Your task to perform on an android device: What's the news in China? Image 0: 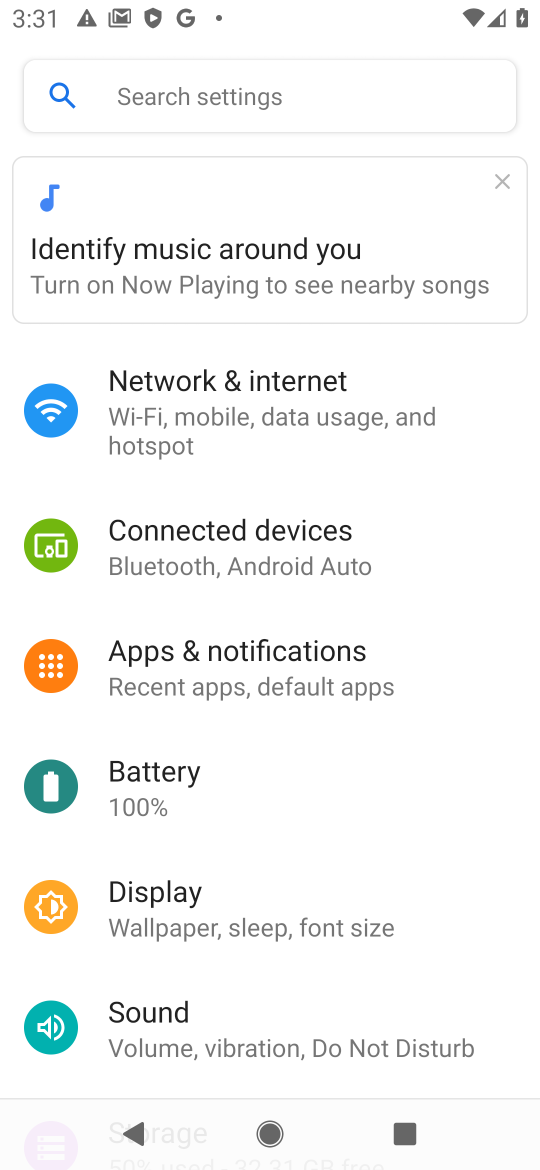
Step 0: press home button
Your task to perform on an android device: What's the news in China? Image 1: 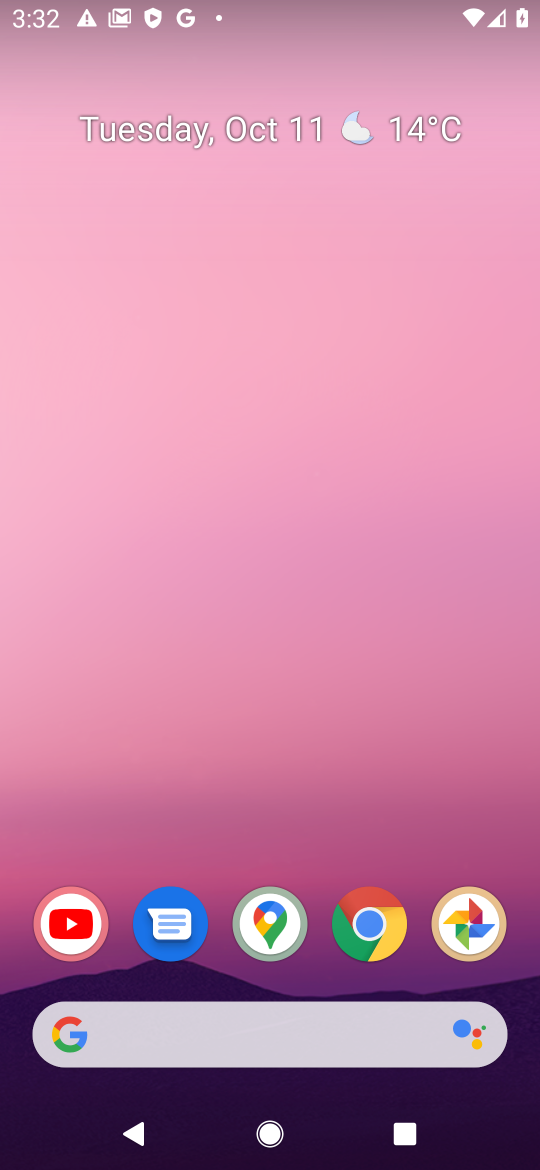
Step 1: click (371, 949)
Your task to perform on an android device: What's the news in China? Image 2: 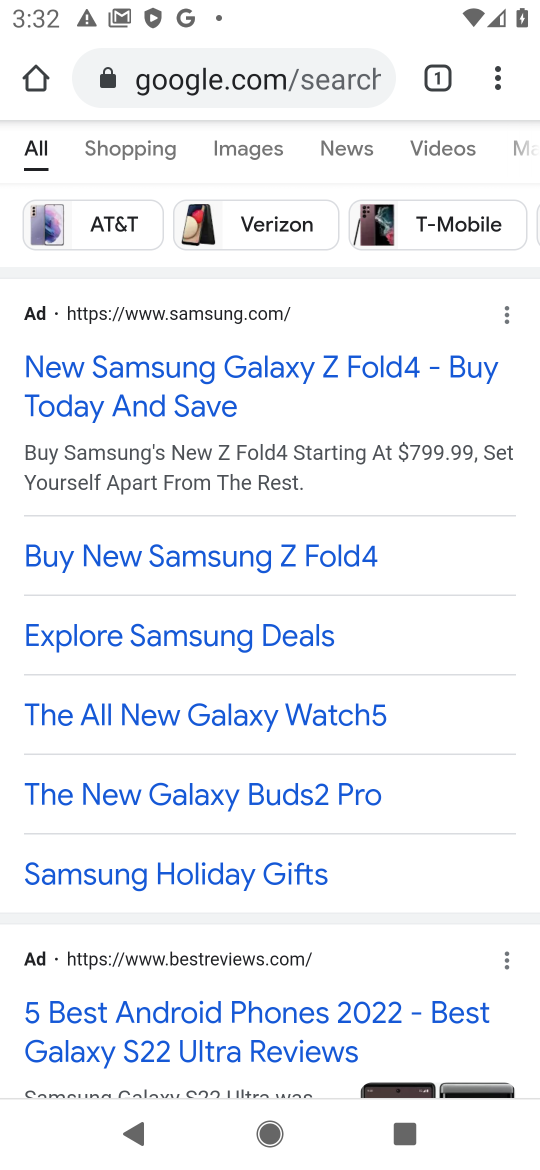
Step 2: click (314, 73)
Your task to perform on an android device: What's the news in China? Image 3: 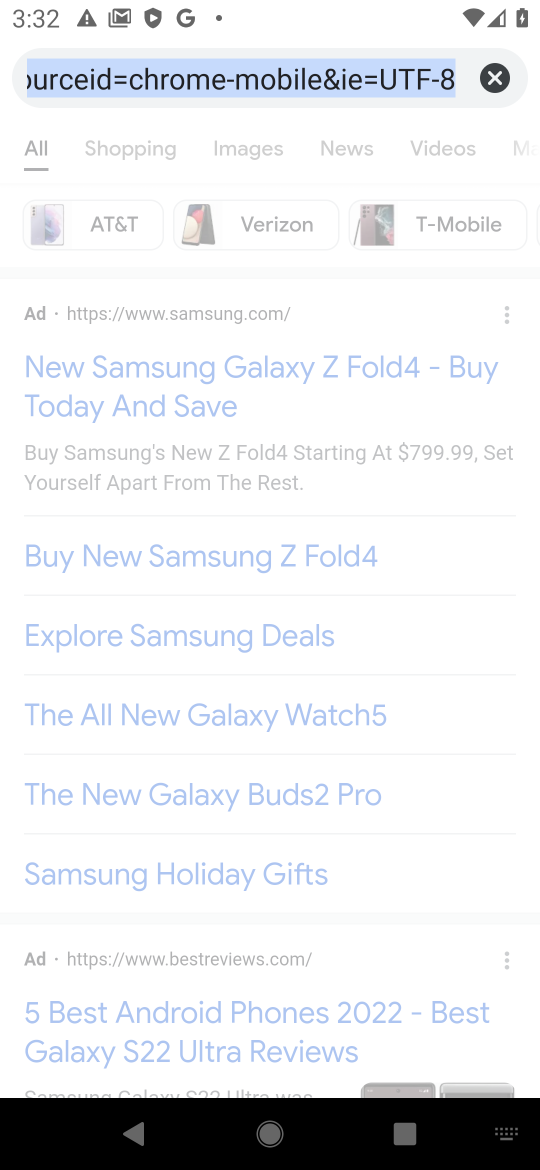
Step 3: type "China"
Your task to perform on an android device: What's the news in China? Image 4: 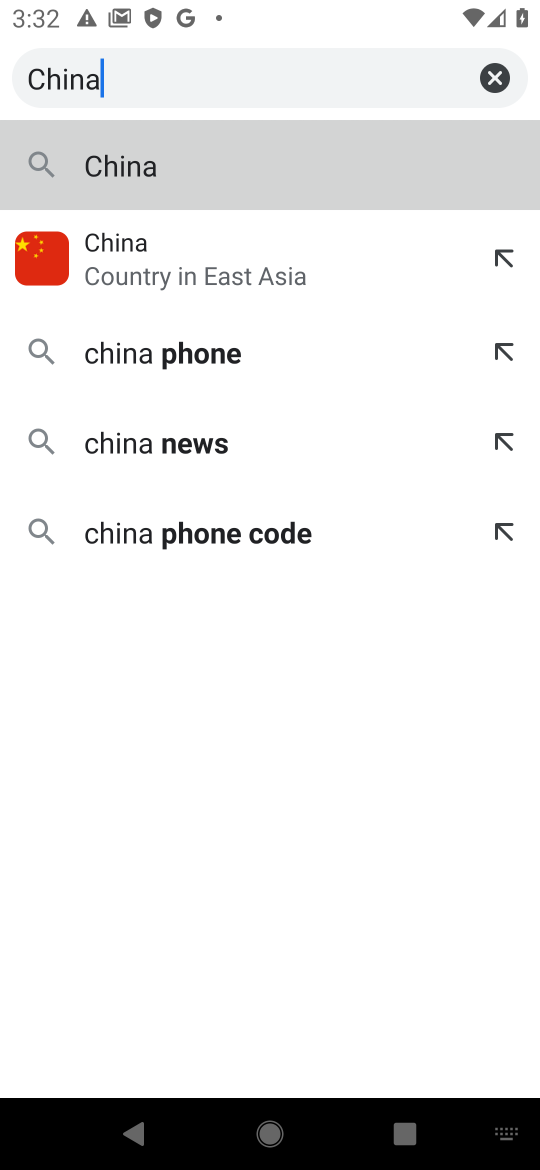
Step 4: click (295, 147)
Your task to perform on an android device: What's the news in China? Image 5: 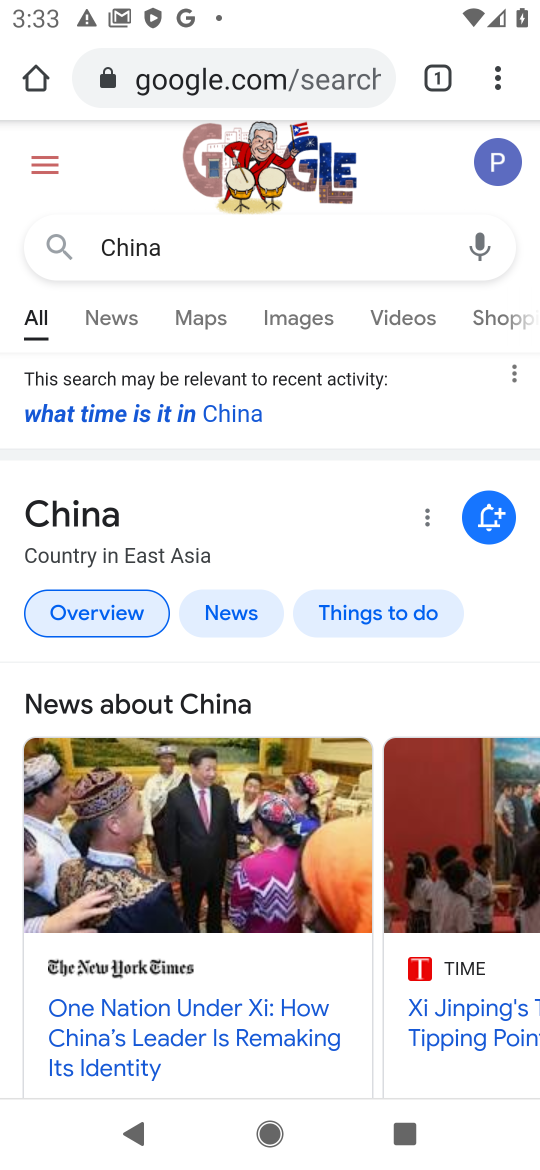
Step 5: click (125, 327)
Your task to perform on an android device: What's the news in China? Image 6: 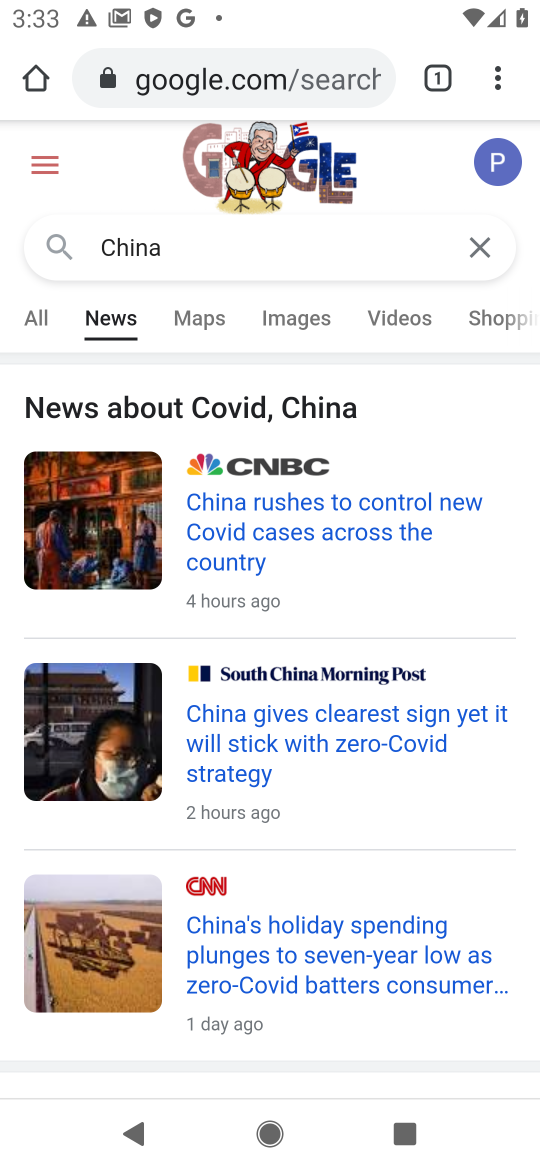
Step 6: task complete